Your task to perform on an android device: open app "Skype" (install if not already installed) Image 0: 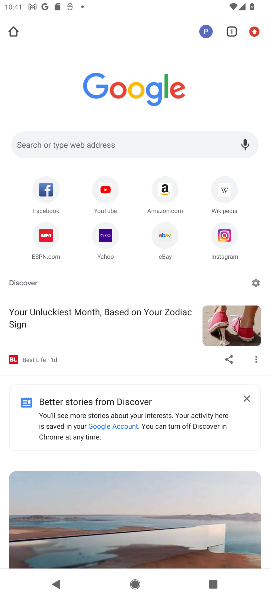
Step 0: press home button
Your task to perform on an android device: open app "Skype" (install if not already installed) Image 1: 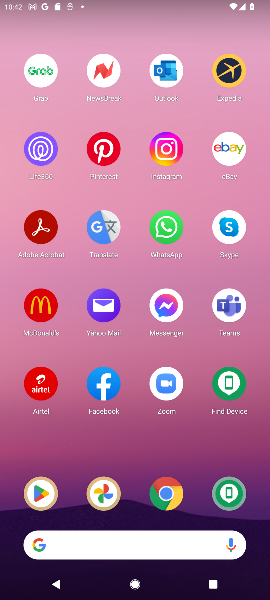
Step 1: click (41, 480)
Your task to perform on an android device: open app "Skype" (install if not already installed) Image 2: 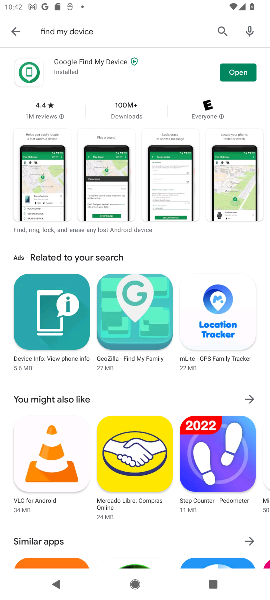
Step 2: click (213, 35)
Your task to perform on an android device: open app "Skype" (install if not already installed) Image 3: 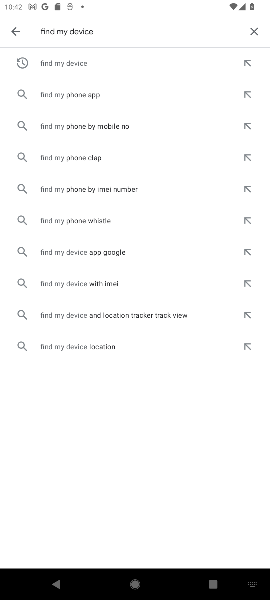
Step 3: type "skype"
Your task to perform on an android device: open app "Skype" (install if not already installed) Image 4: 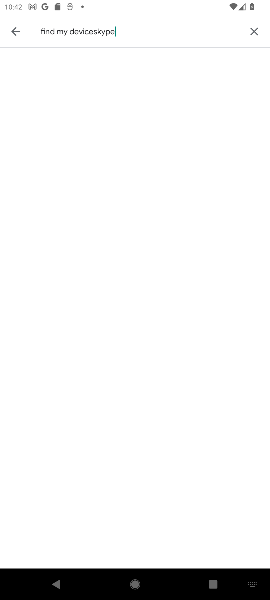
Step 4: task complete